Your task to perform on an android device: What is the recent news? Image 0: 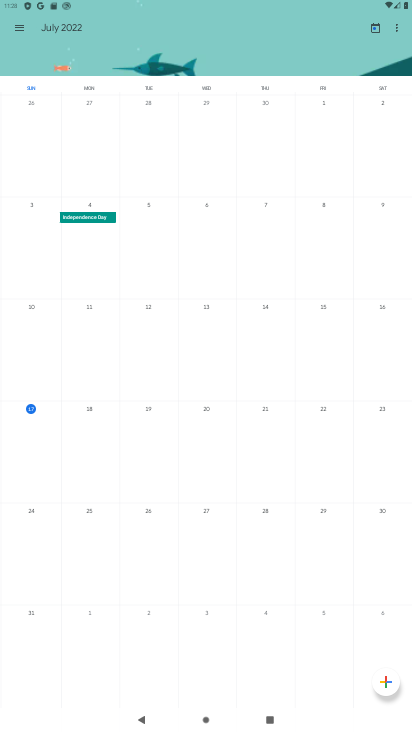
Step 0: press home button
Your task to perform on an android device: What is the recent news? Image 1: 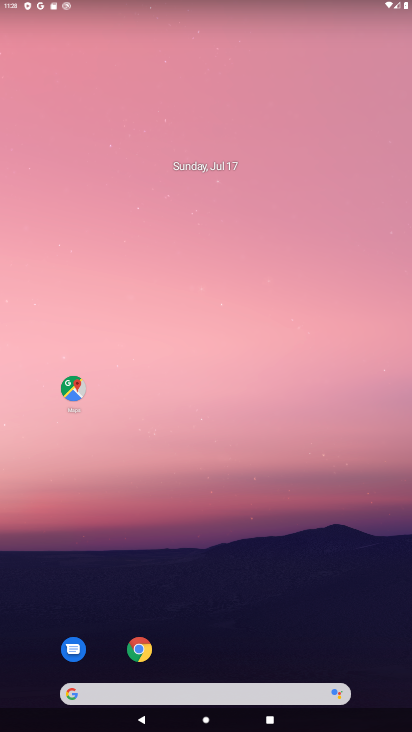
Step 1: drag from (227, 653) to (230, 140)
Your task to perform on an android device: What is the recent news? Image 2: 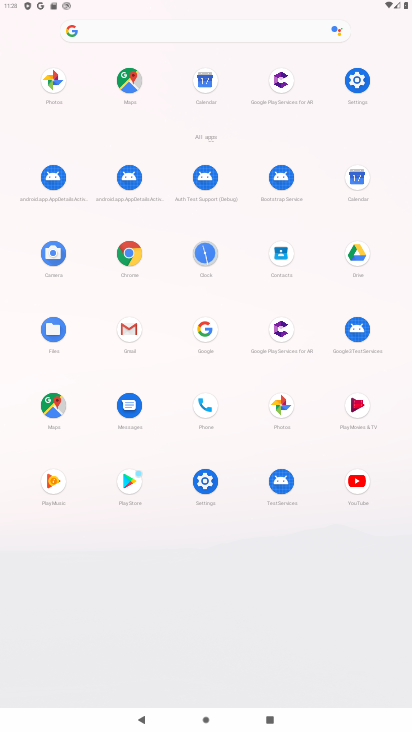
Step 2: click (129, 259)
Your task to perform on an android device: What is the recent news? Image 3: 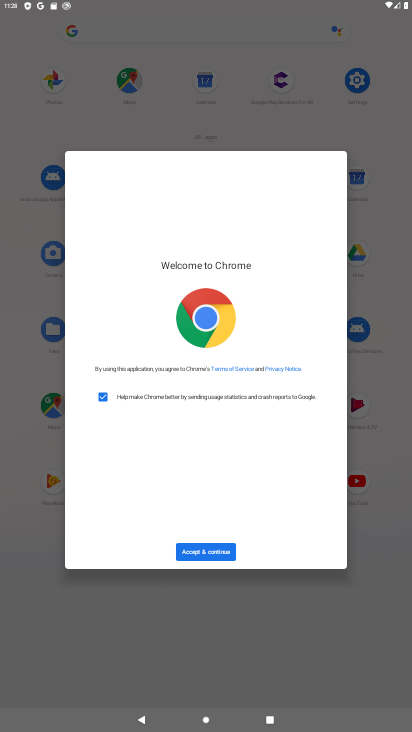
Step 3: click (224, 554)
Your task to perform on an android device: What is the recent news? Image 4: 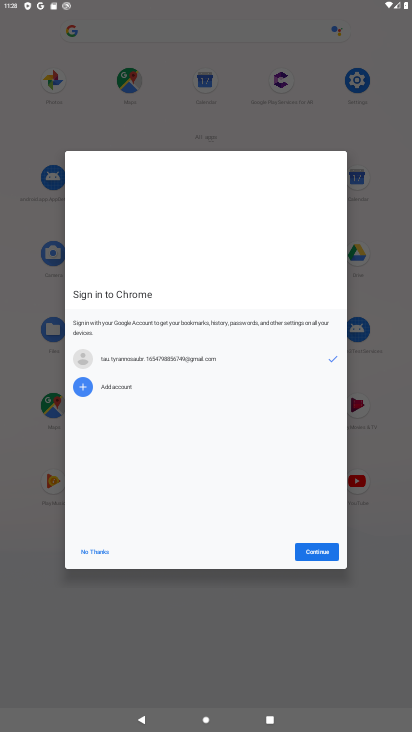
Step 4: click (224, 554)
Your task to perform on an android device: What is the recent news? Image 5: 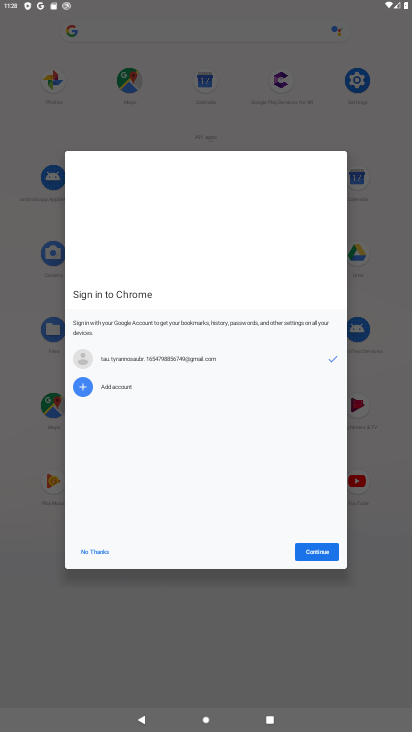
Step 5: click (331, 549)
Your task to perform on an android device: What is the recent news? Image 6: 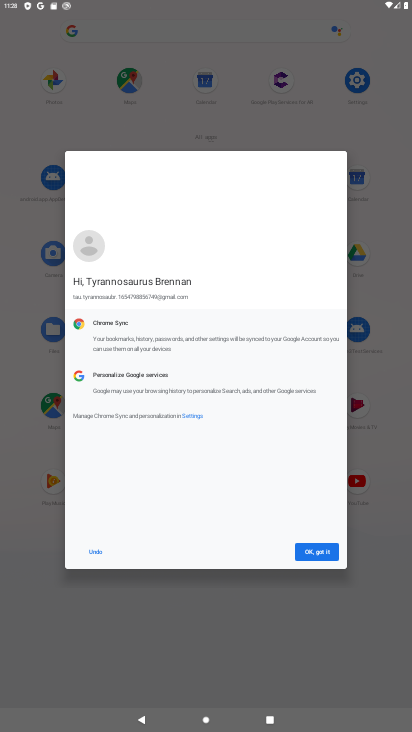
Step 6: click (331, 549)
Your task to perform on an android device: What is the recent news? Image 7: 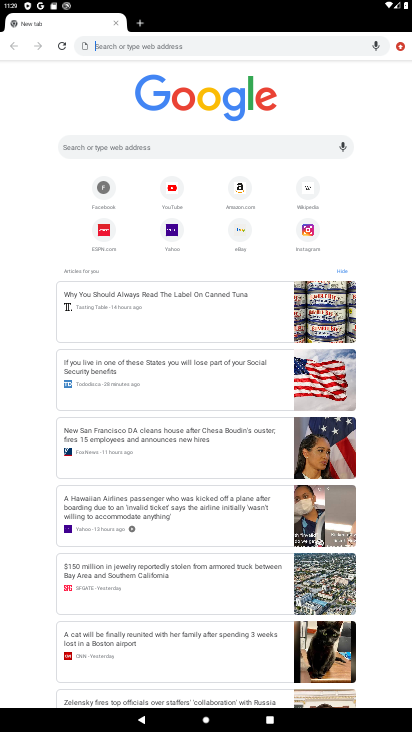
Step 7: task complete